Your task to perform on an android device: Add "asus zenbook" to the cart on walmart Image 0: 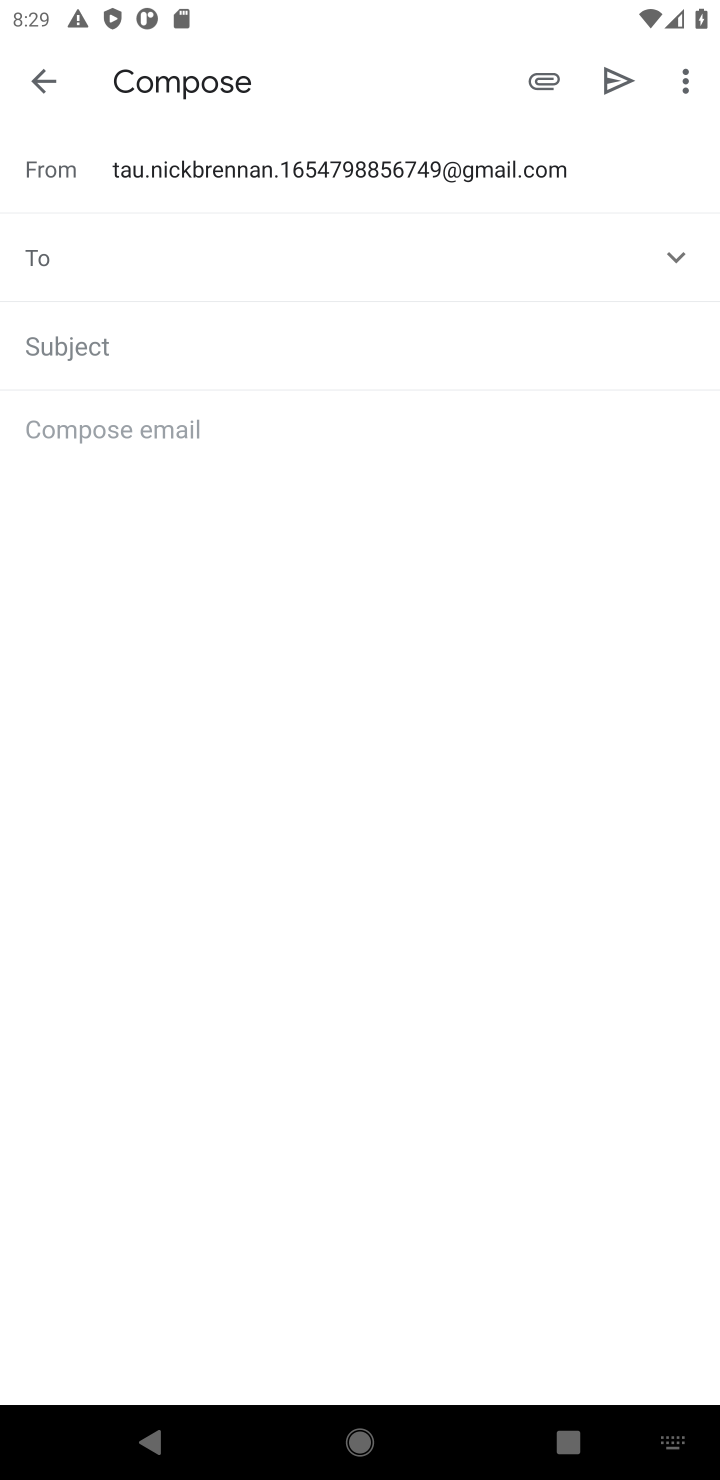
Step 0: task complete